Your task to perform on an android device: open wifi settings Image 0: 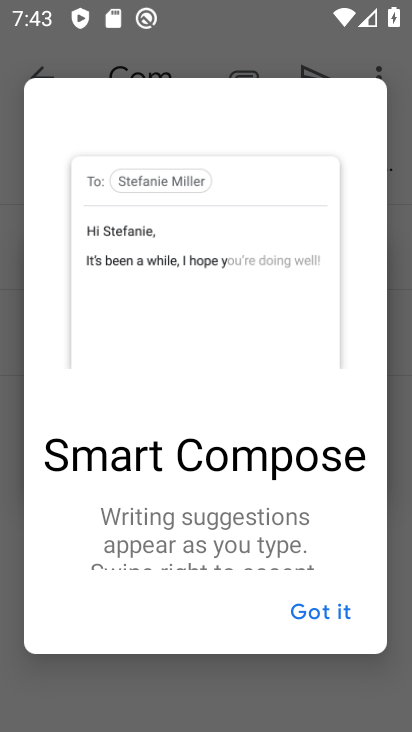
Step 0: press home button
Your task to perform on an android device: open wifi settings Image 1: 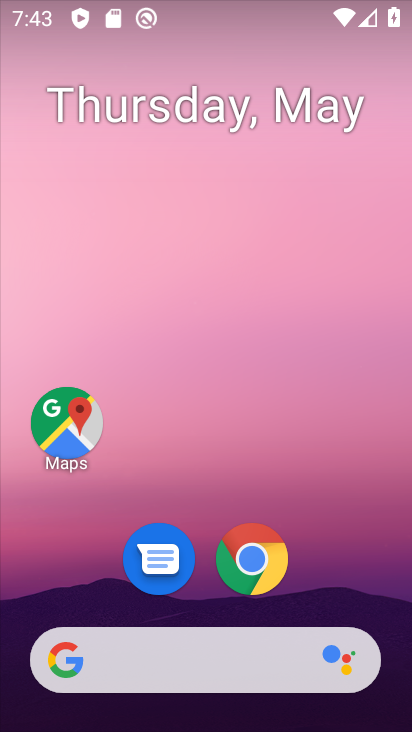
Step 1: drag from (276, 578) to (272, 281)
Your task to perform on an android device: open wifi settings Image 2: 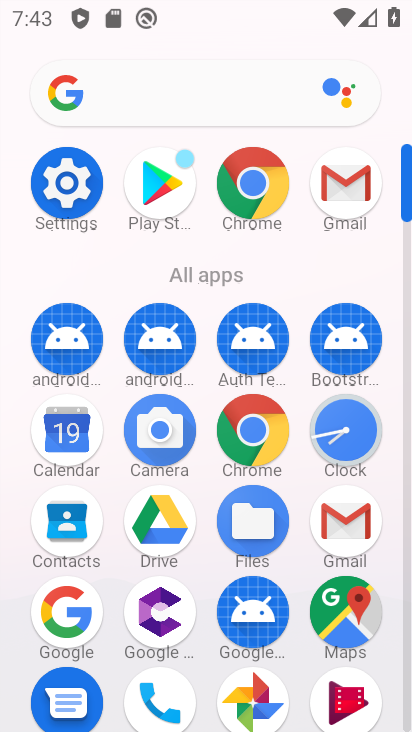
Step 2: click (55, 181)
Your task to perform on an android device: open wifi settings Image 3: 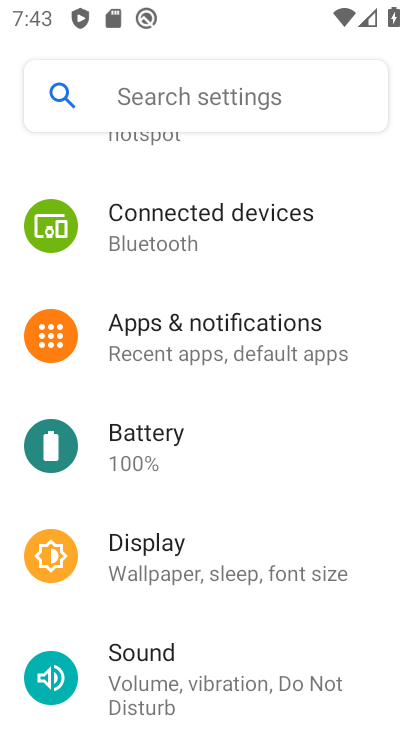
Step 3: drag from (211, 202) to (225, 481)
Your task to perform on an android device: open wifi settings Image 4: 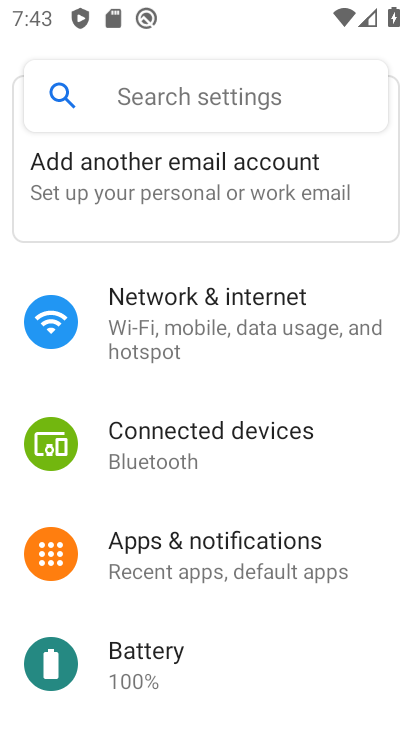
Step 4: click (227, 351)
Your task to perform on an android device: open wifi settings Image 5: 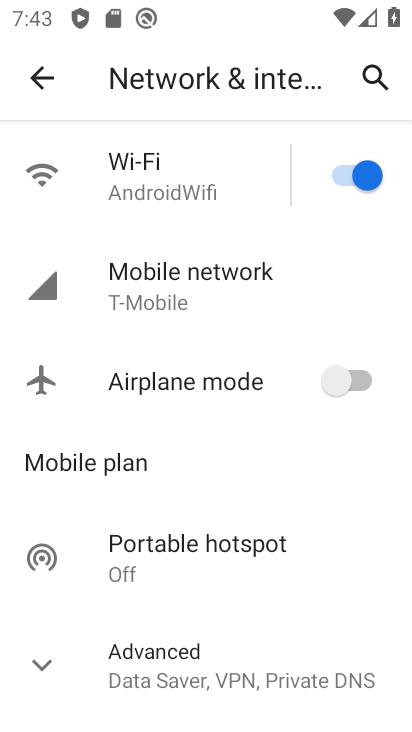
Step 5: click (170, 261)
Your task to perform on an android device: open wifi settings Image 6: 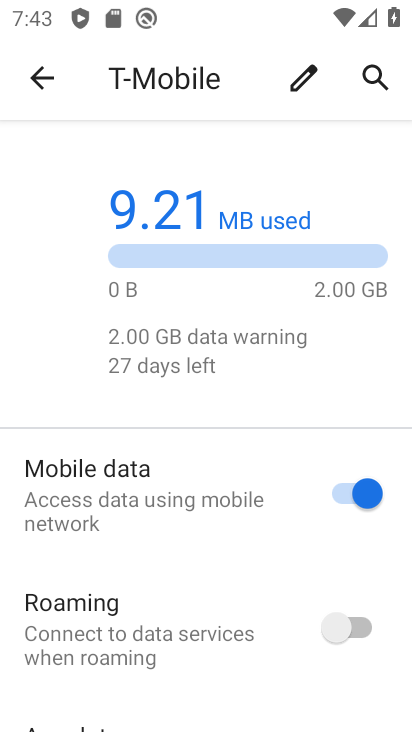
Step 6: press back button
Your task to perform on an android device: open wifi settings Image 7: 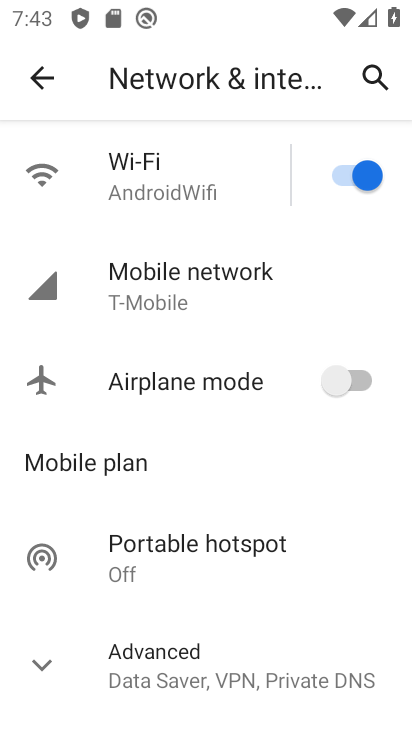
Step 7: click (189, 184)
Your task to perform on an android device: open wifi settings Image 8: 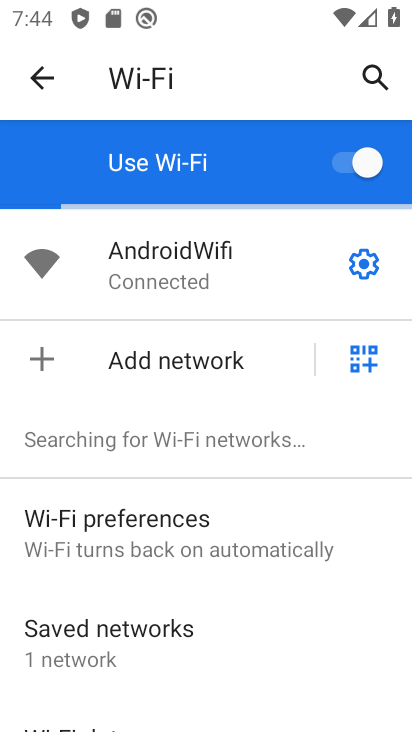
Step 8: task complete